Your task to perform on an android device: turn on data saver in the chrome app Image 0: 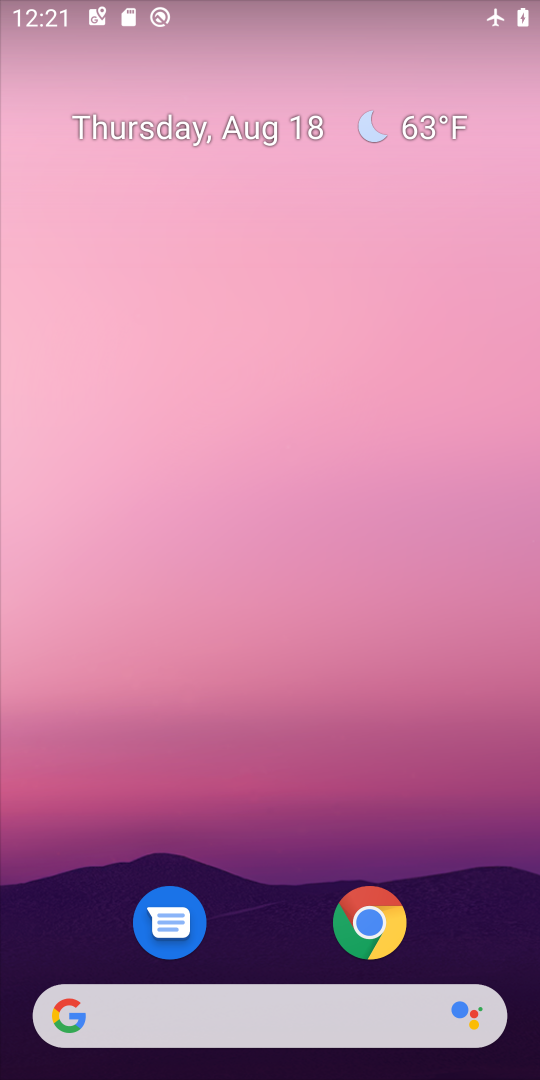
Step 0: click (371, 925)
Your task to perform on an android device: turn on data saver in the chrome app Image 1: 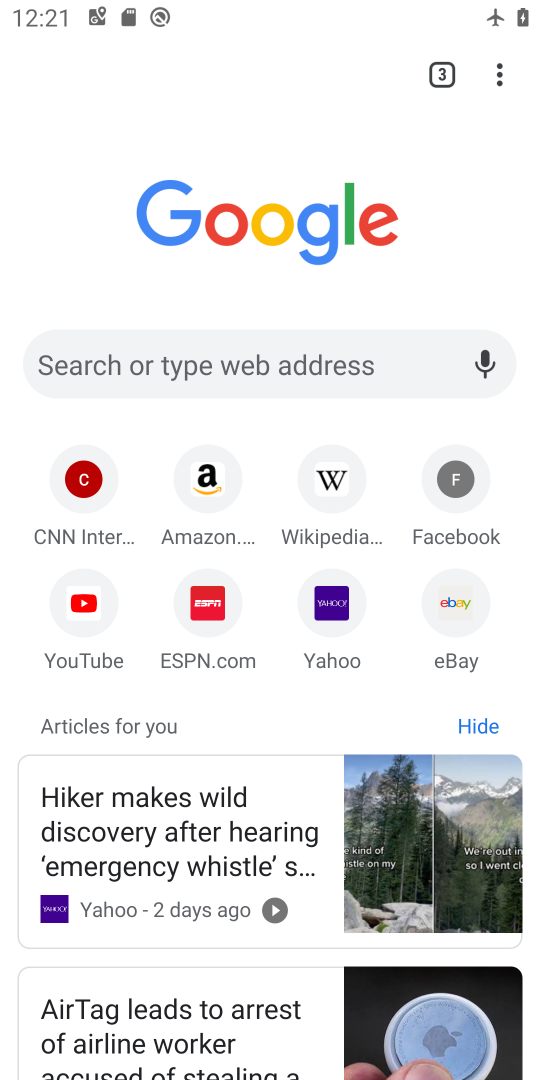
Step 1: click (502, 72)
Your task to perform on an android device: turn on data saver in the chrome app Image 2: 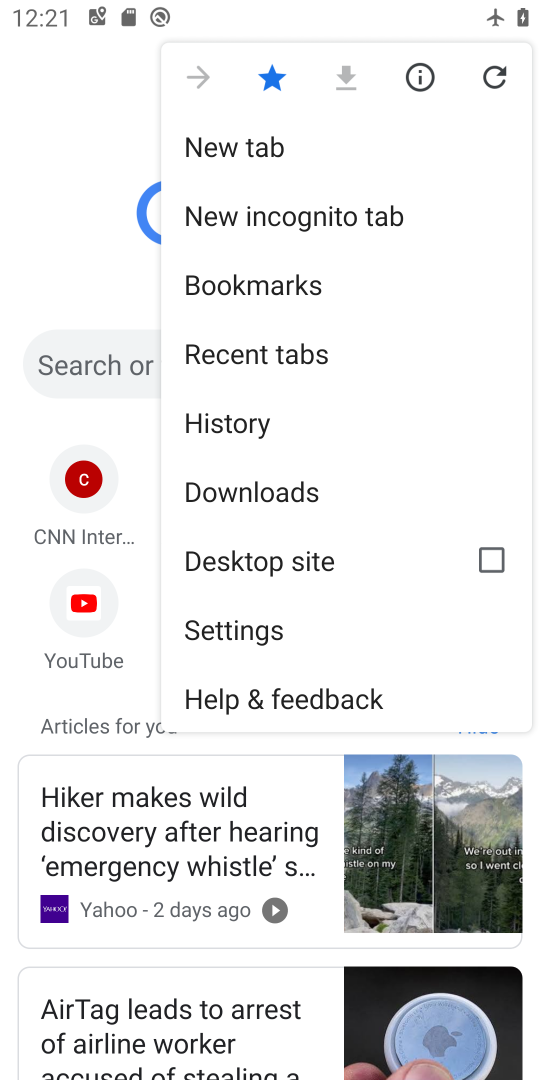
Step 2: click (258, 622)
Your task to perform on an android device: turn on data saver in the chrome app Image 3: 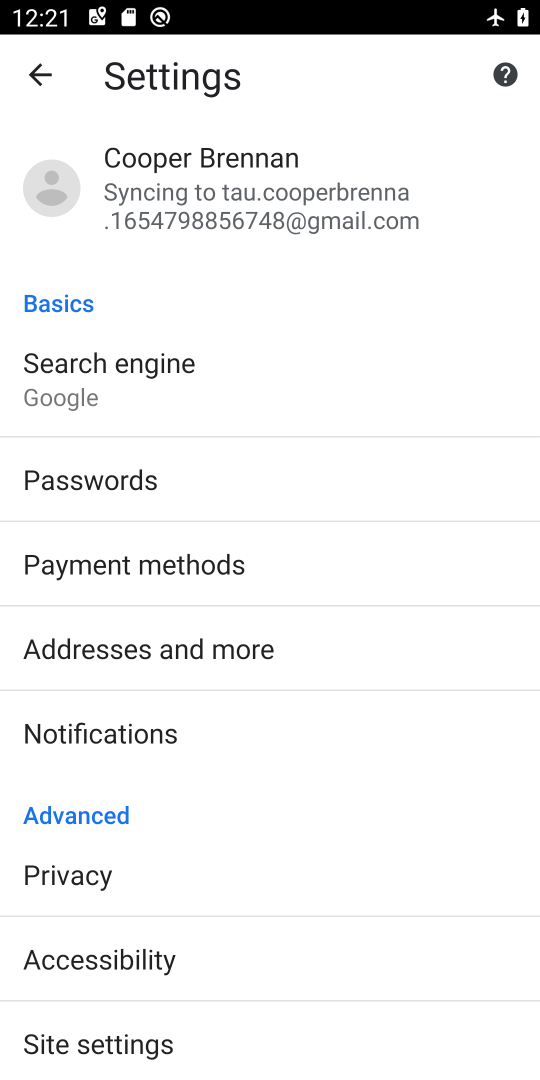
Step 3: drag from (225, 983) to (200, 613)
Your task to perform on an android device: turn on data saver in the chrome app Image 4: 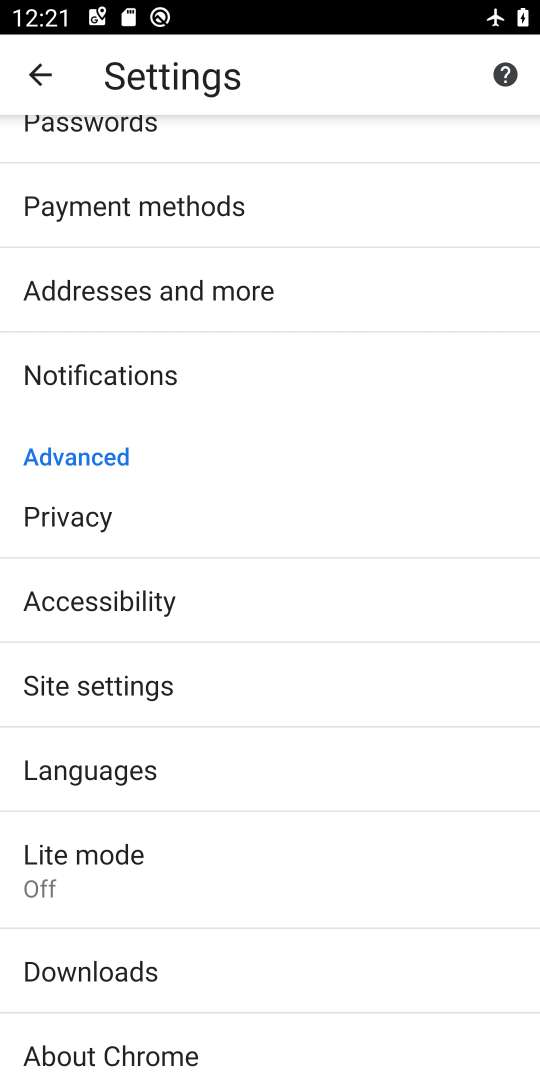
Step 4: click (84, 866)
Your task to perform on an android device: turn on data saver in the chrome app Image 5: 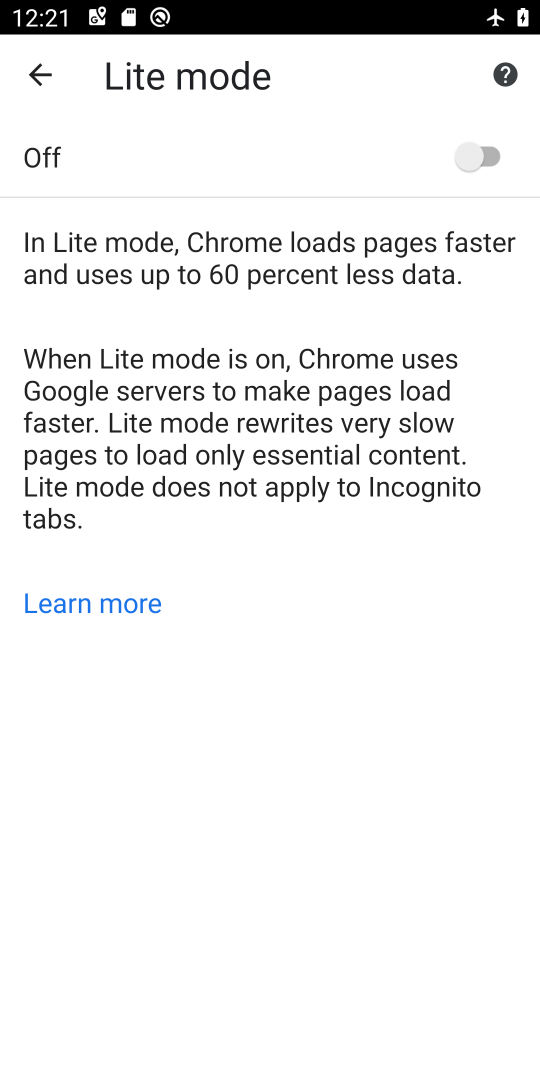
Step 5: click (476, 150)
Your task to perform on an android device: turn on data saver in the chrome app Image 6: 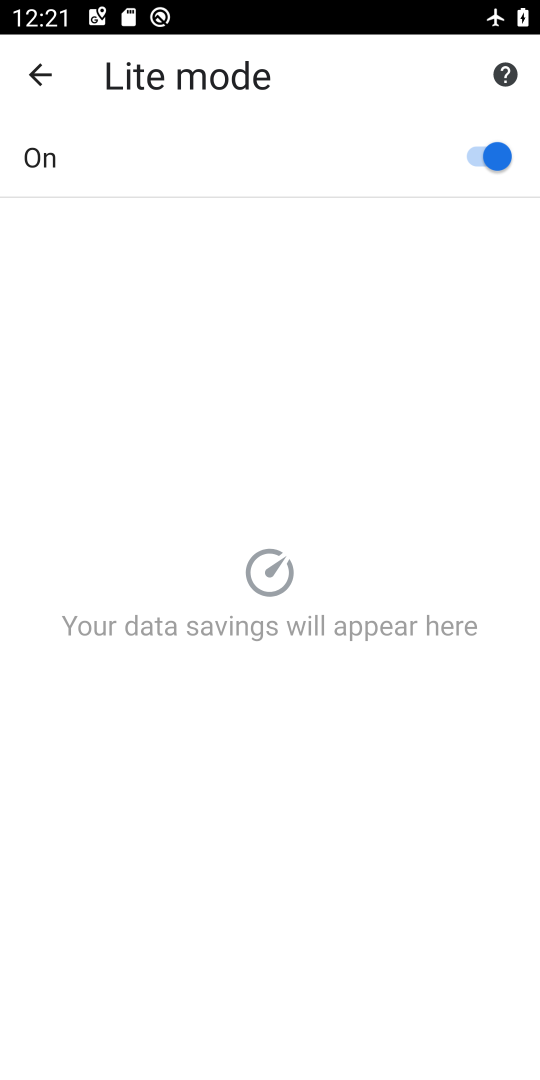
Step 6: task complete